Your task to perform on an android device: Go to Wikipedia Image 0: 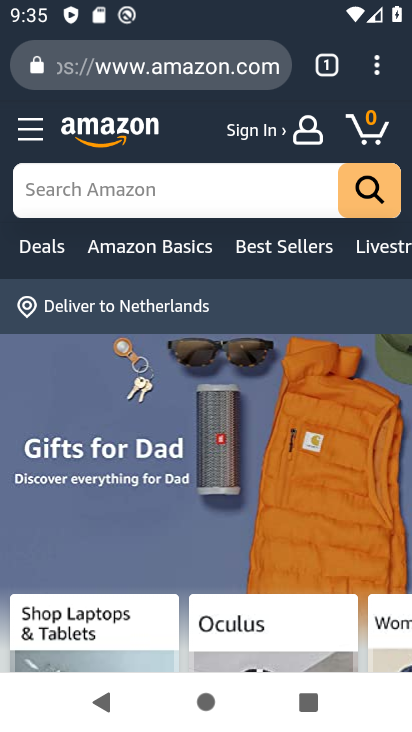
Step 0: press back button
Your task to perform on an android device: Go to Wikipedia Image 1: 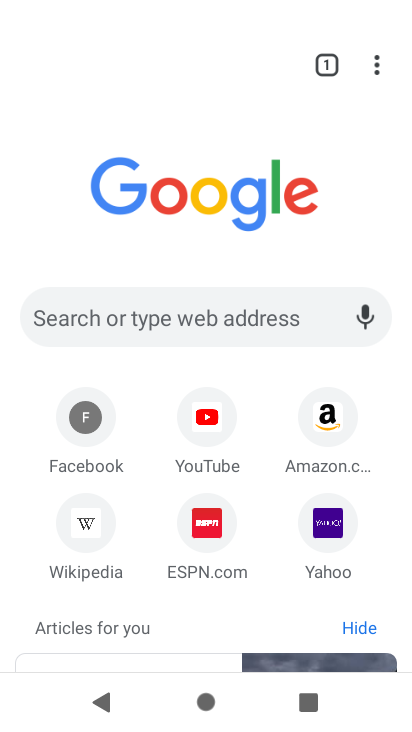
Step 1: click (90, 534)
Your task to perform on an android device: Go to Wikipedia Image 2: 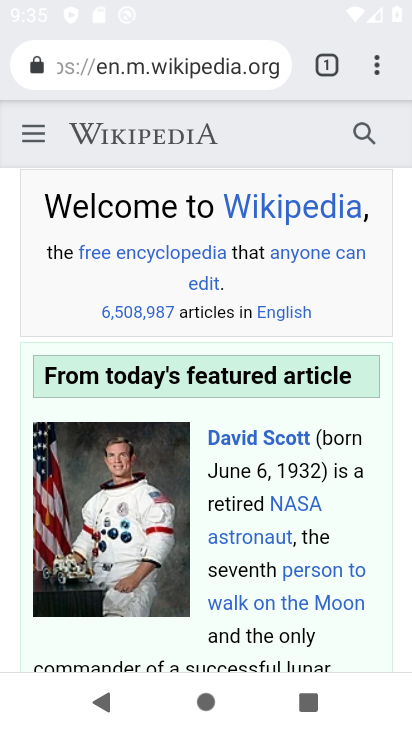
Step 2: task complete